Your task to perform on an android device: Is it going to rain tomorrow? Image 0: 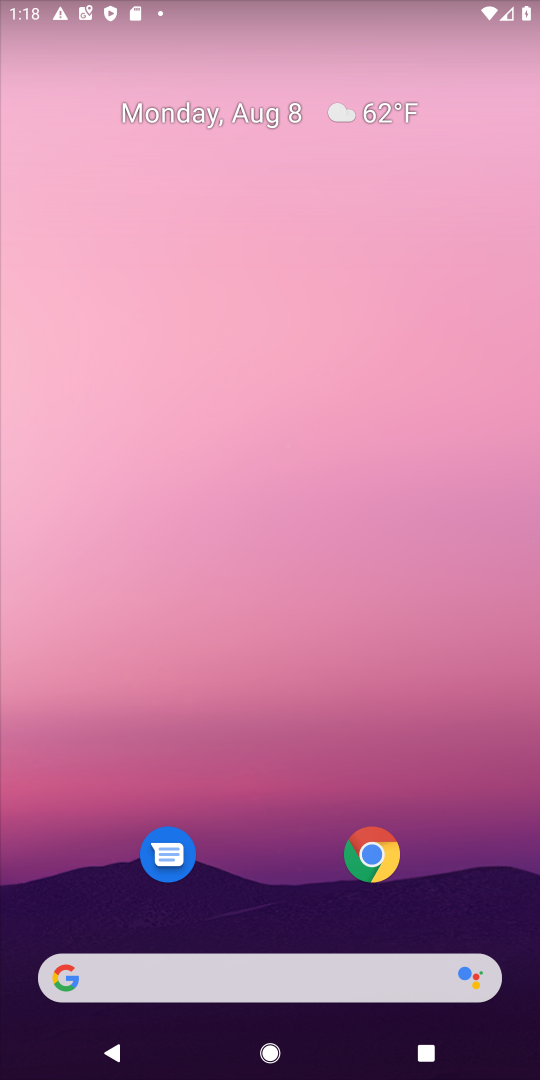
Step 0: click (59, 975)
Your task to perform on an android device: Is it going to rain tomorrow? Image 1: 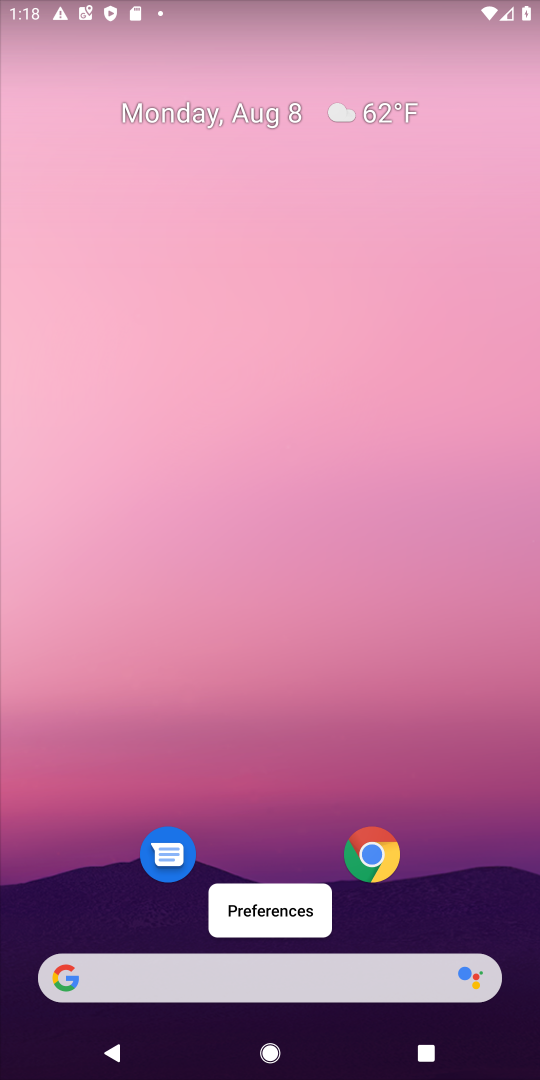
Step 1: click (60, 978)
Your task to perform on an android device: Is it going to rain tomorrow? Image 2: 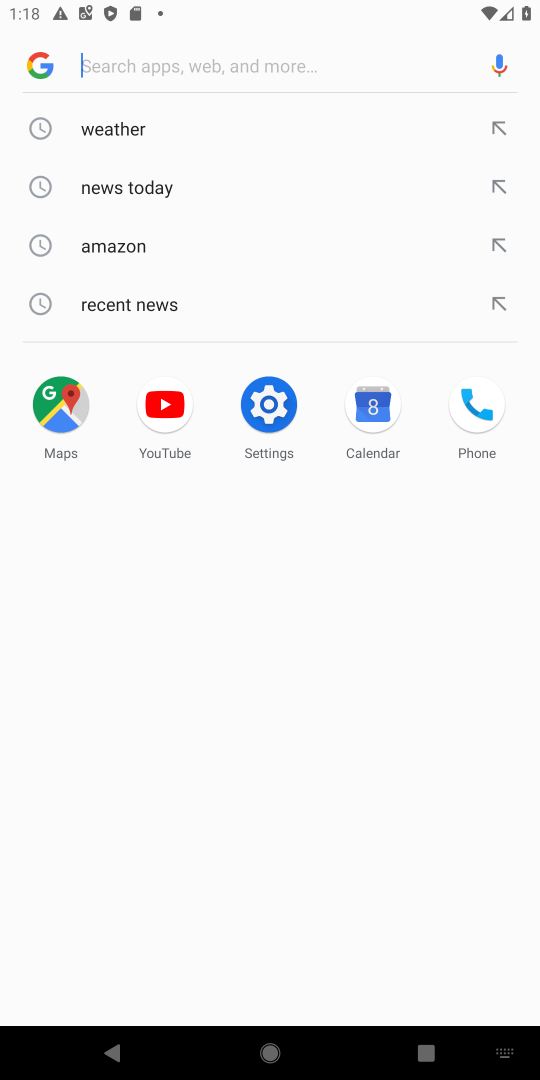
Step 2: type "Is it going to rain tomorrow?"
Your task to perform on an android device: Is it going to rain tomorrow? Image 3: 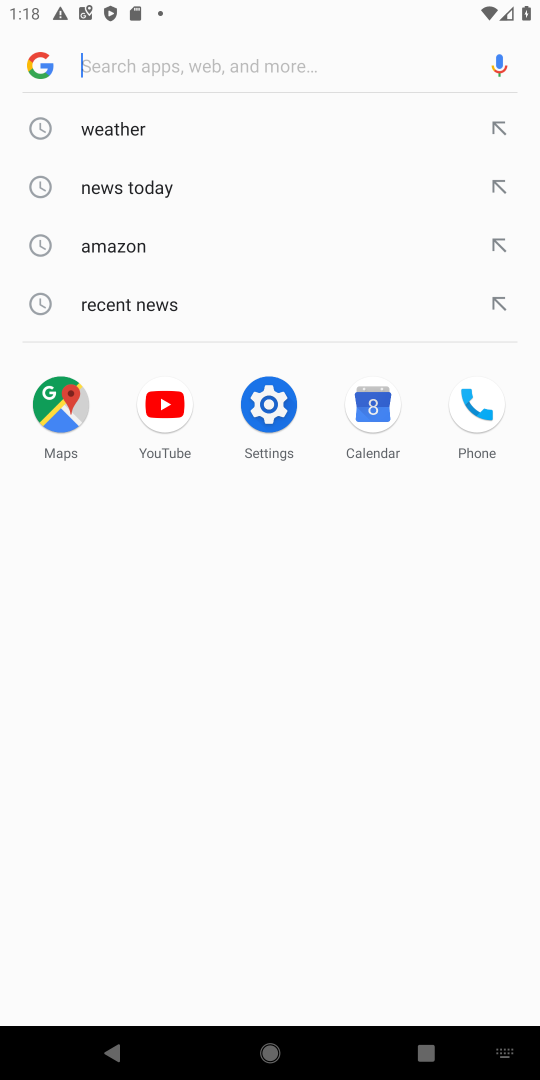
Step 3: click (158, 58)
Your task to perform on an android device: Is it going to rain tomorrow? Image 4: 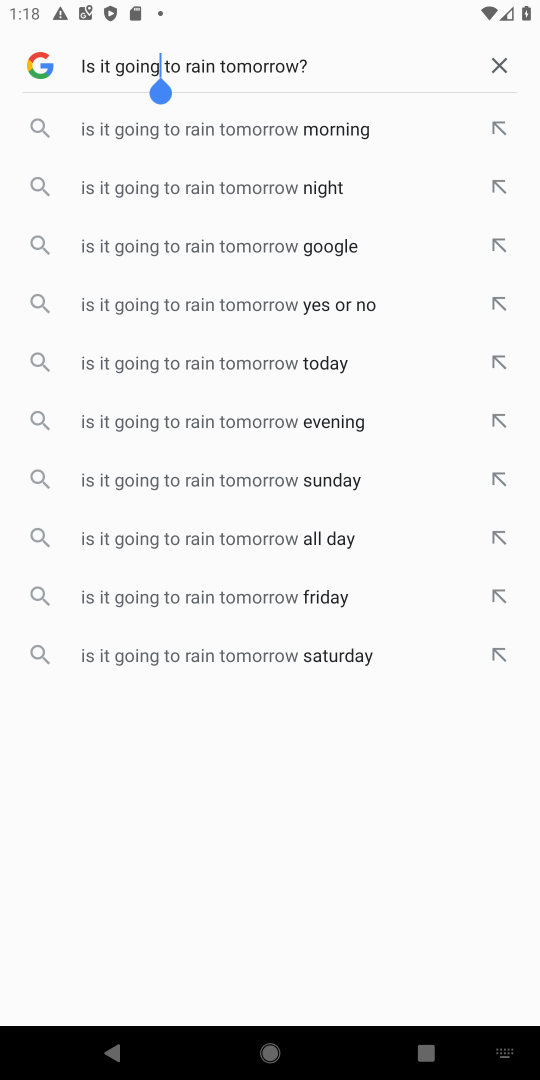
Step 4: press enter
Your task to perform on an android device: Is it going to rain tomorrow? Image 5: 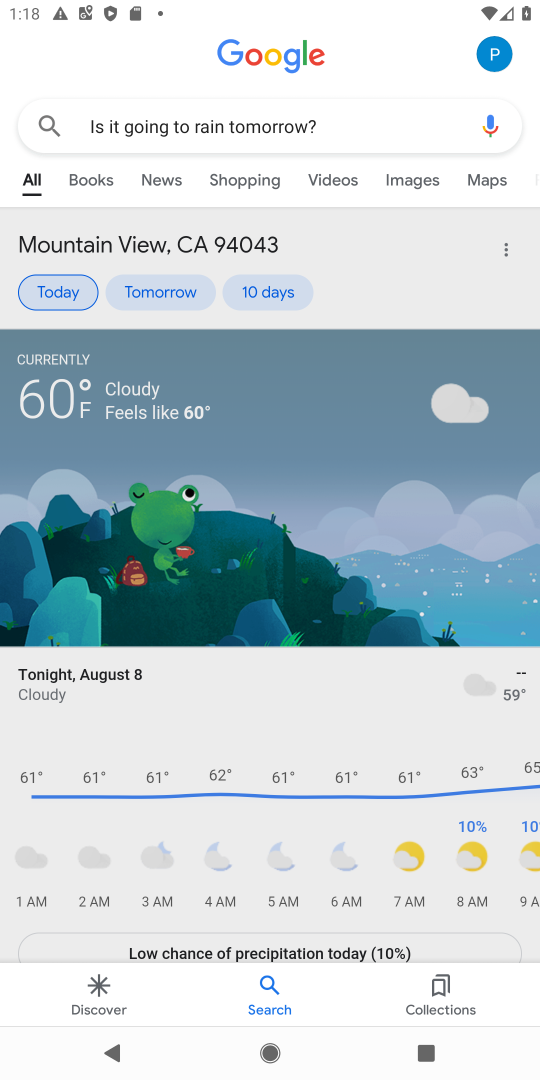
Step 5: task complete